Your task to perform on an android device: find which apps use the phone's location Image 0: 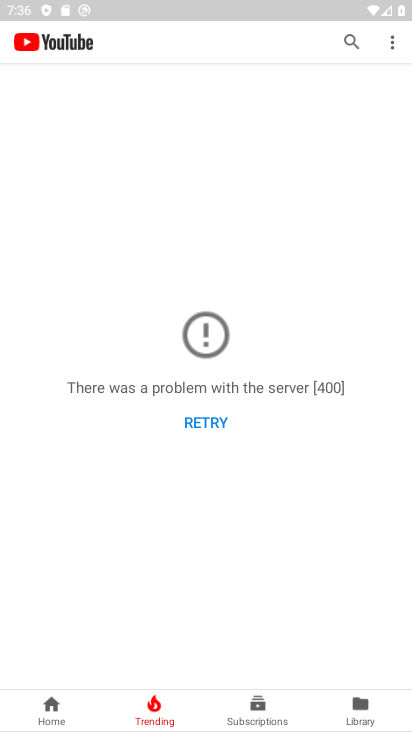
Step 0: press home button
Your task to perform on an android device: find which apps use the phone's location Image 1: 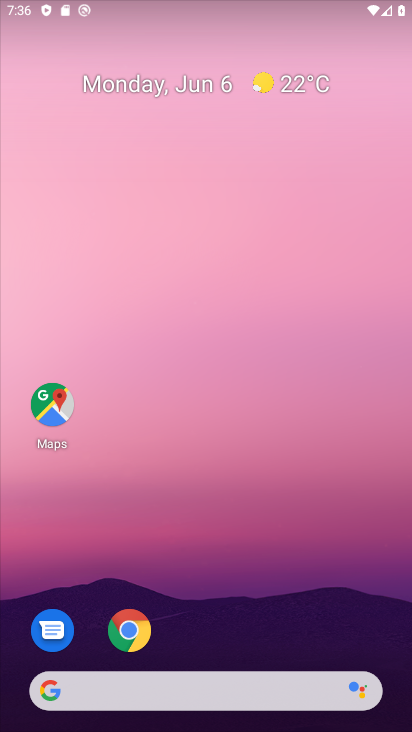
Step 1: drag from (153, 731) to (206, 235)
Your task to perform on an android device: find which apps use the phone's location Image 2: 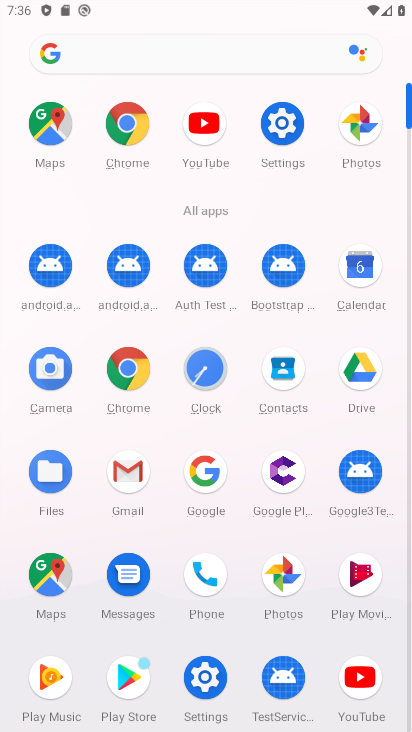
Step 2: click (276, 132)
Your task to perform on an android device: find which apps use the phone's location Image 3: 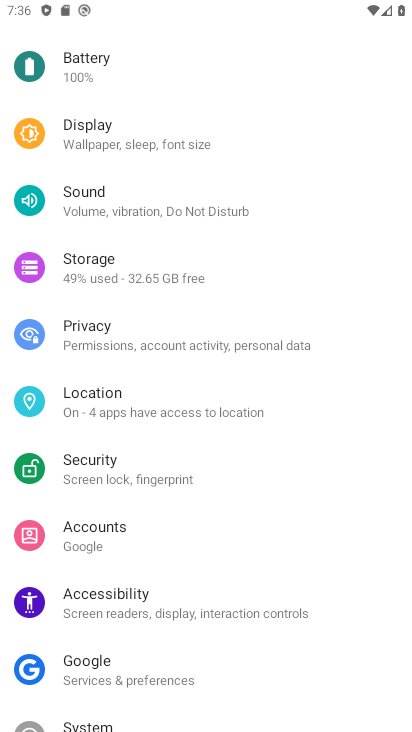
Step 3: click (151, 417)
Your task to perform on an android device: find which apps use the phone's location Image 4: 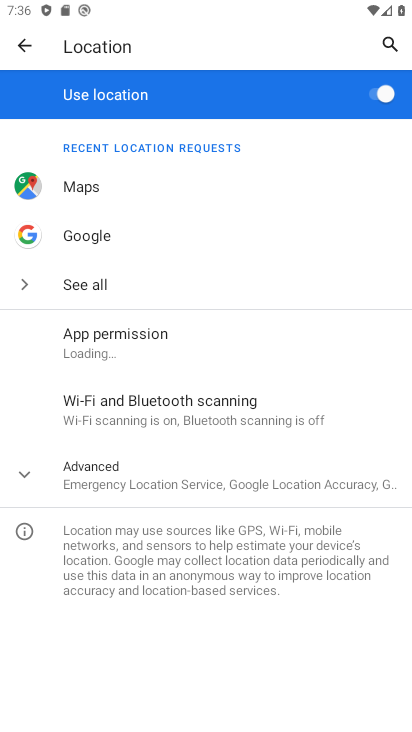
Step 4: click (157, 349)
Your task to perform on an android device: find which apps use the phone's location Image 5: 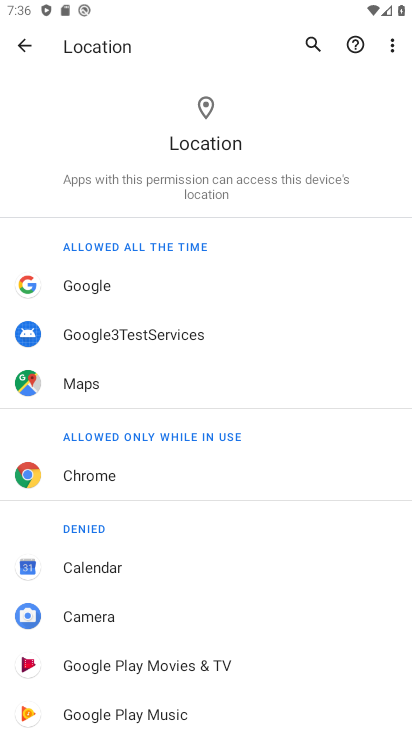
Step 5: task complete